Your task to perform on an android device: Open battery settings Image 0: 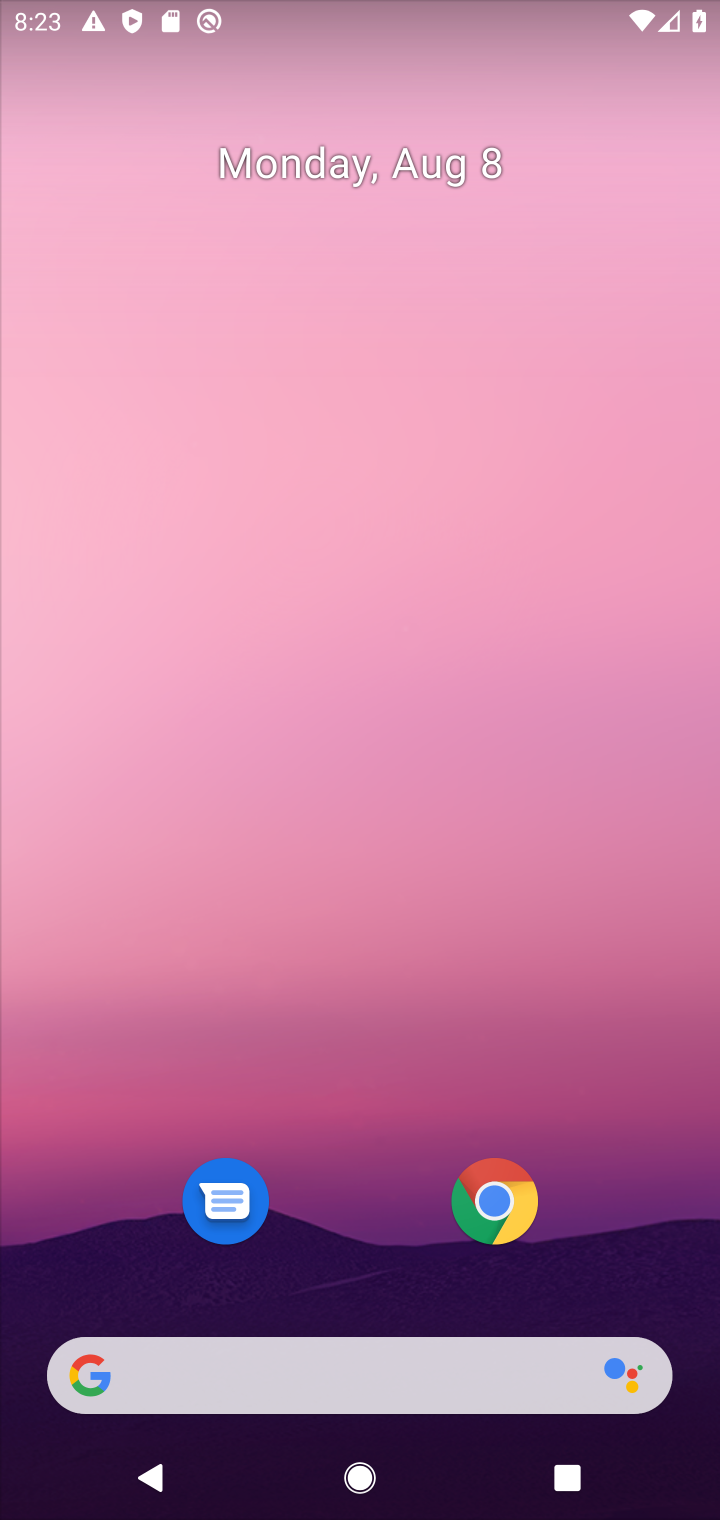
Step 0: press home button
Your task to perform on an android device: Open battery settings Image 1: 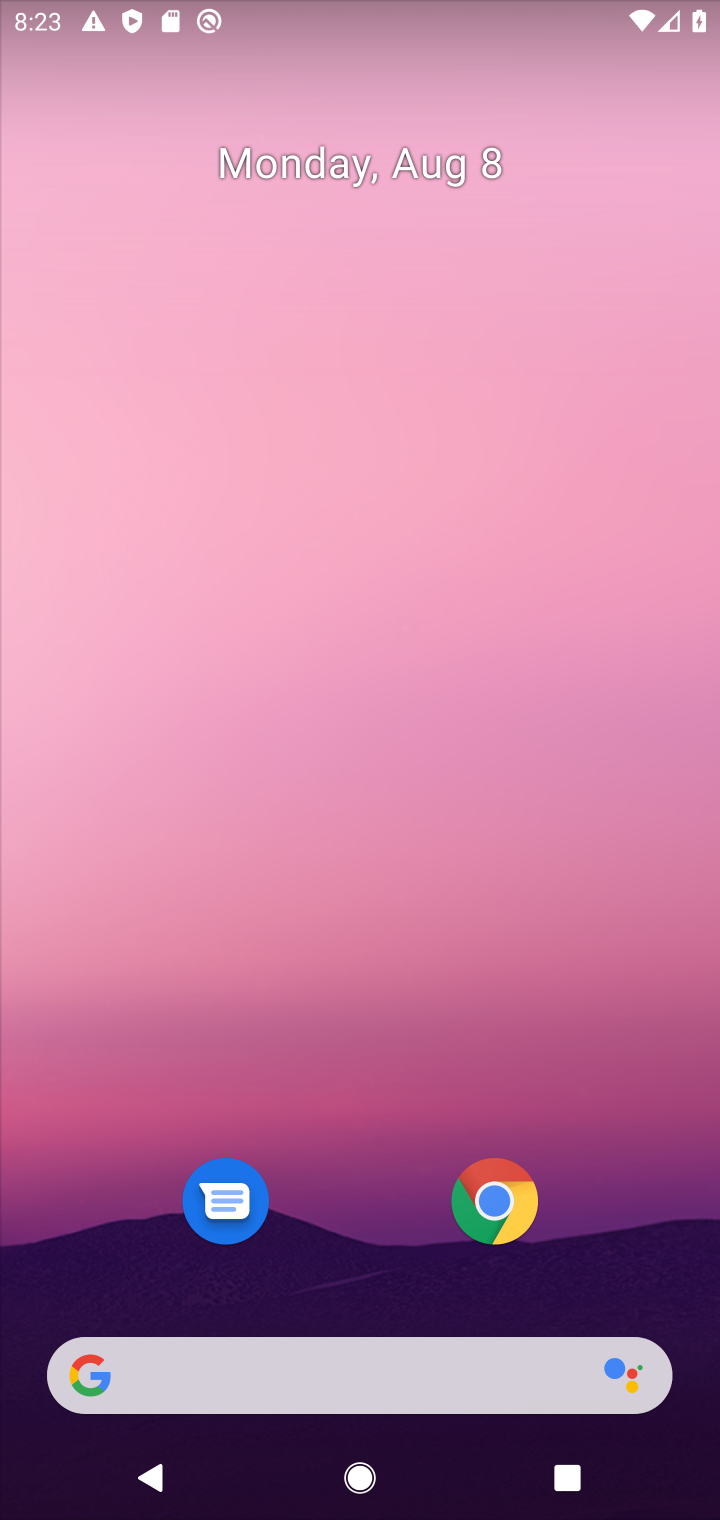
Step 1: drag from (355, 1056) to (454, 242)
Your task to perform on an android device: Open battery settings Image 2: 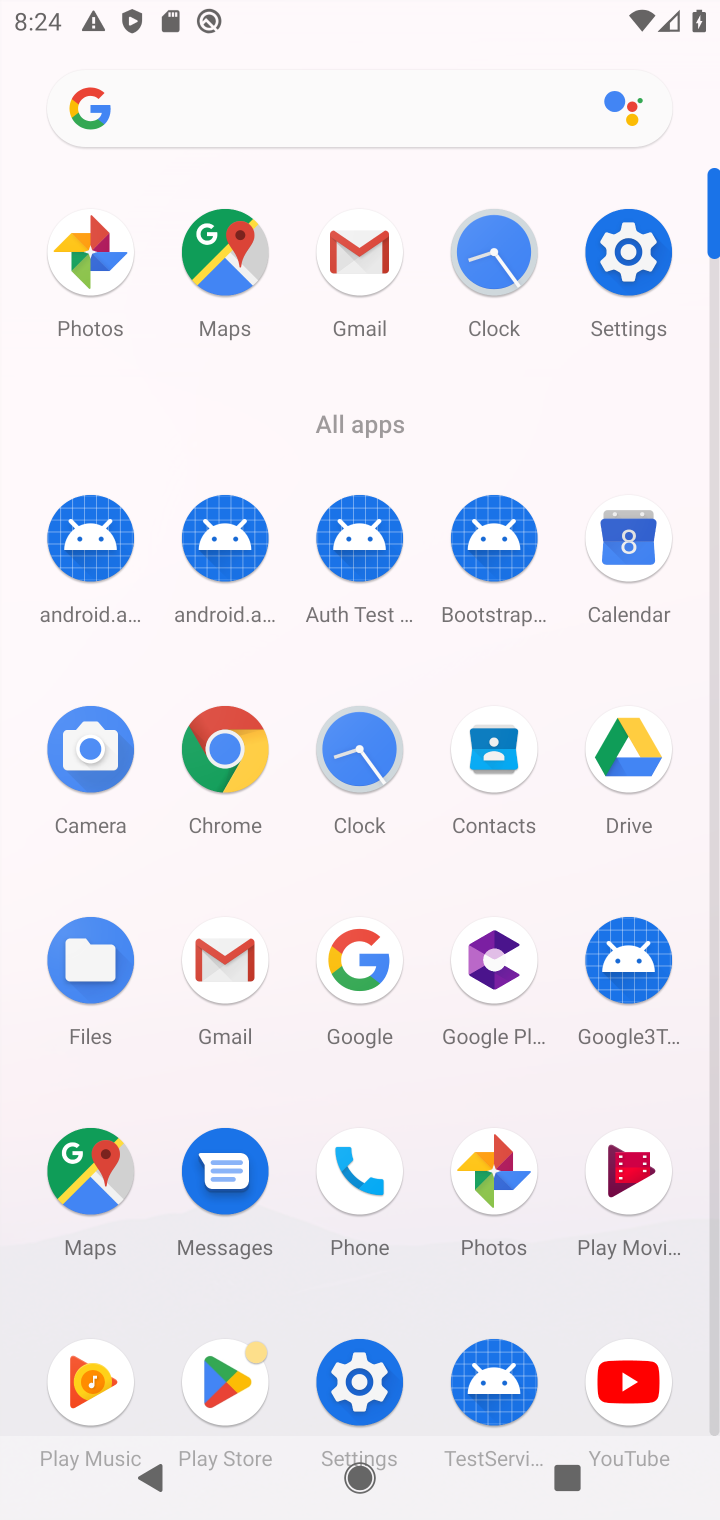
Step 2: click (631, 261)
Your task to perform on an android device: Open battery settings Image 3: 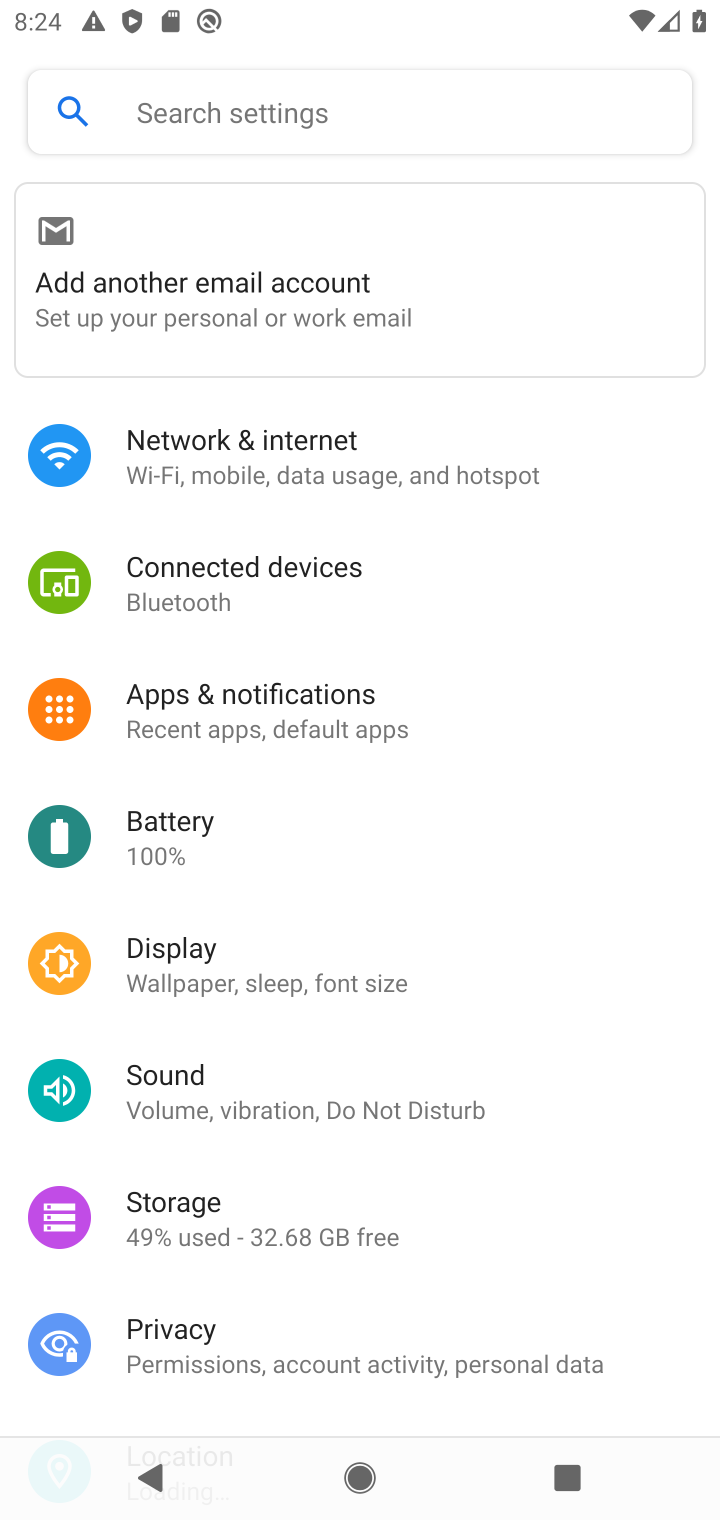
Step 3: drag from (564, 889) to (602, 616)
Your task to perform on an android device: Open battery settings Image 4: 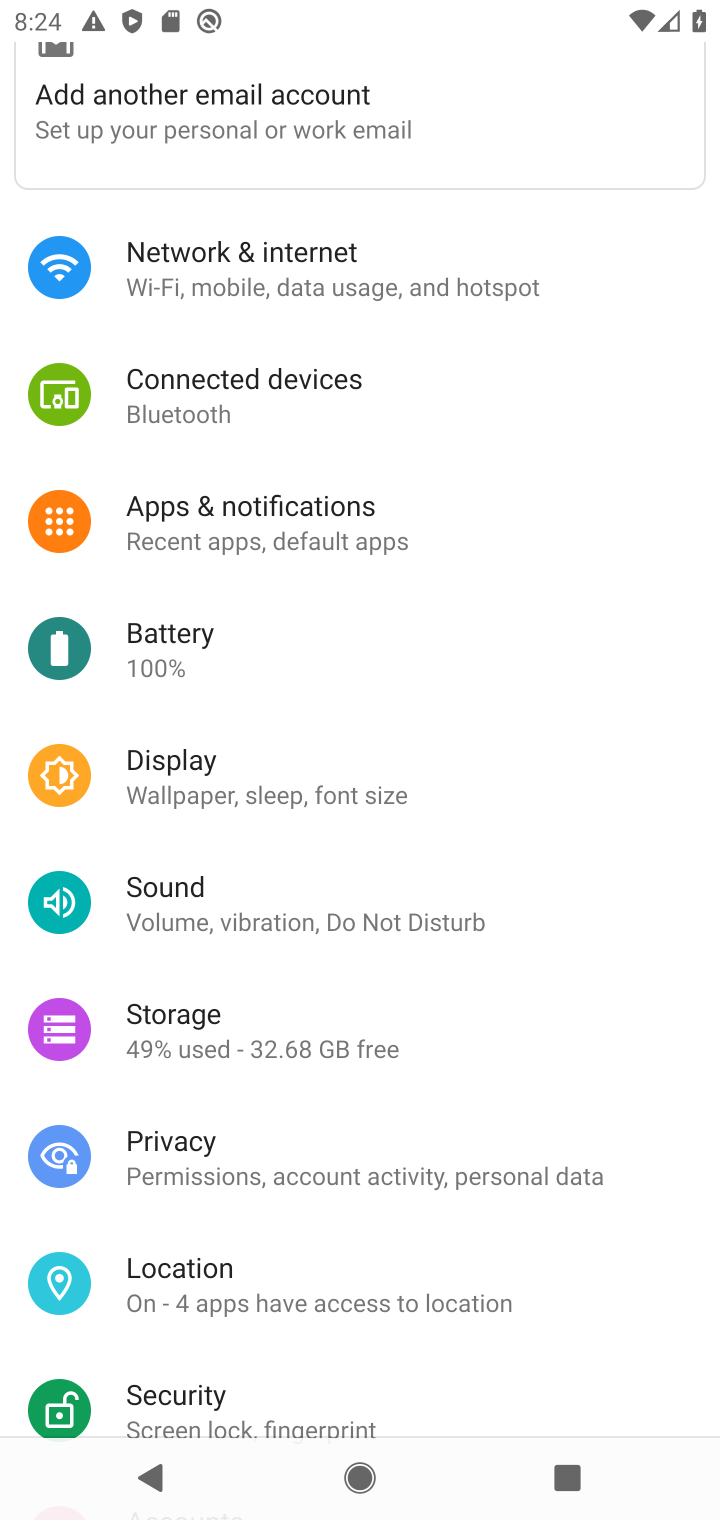
Step 4: drag from (566, 1055) to (620, 723)
Your task to perform on an android device: Open battery settings Image 5: 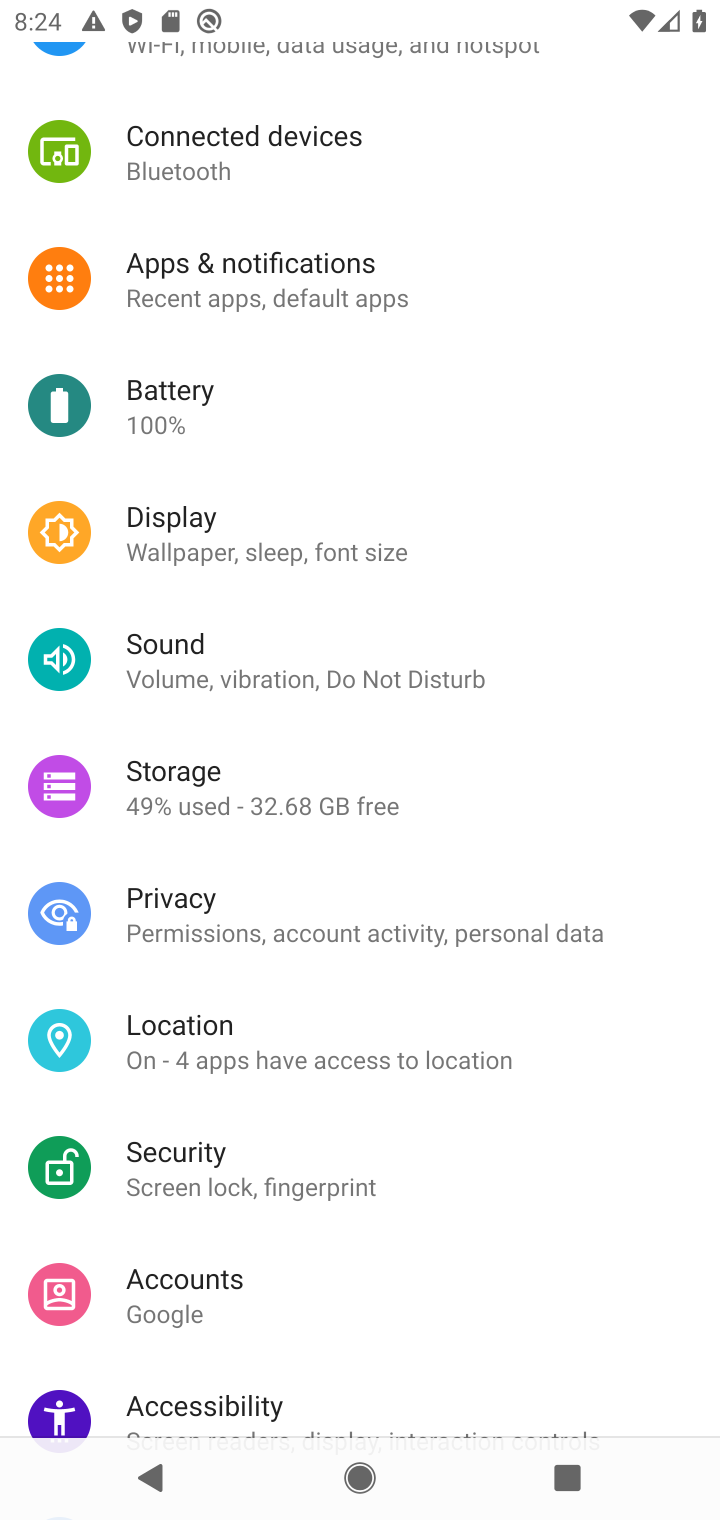
Step 5: drag from (608, 1063) to (645, 781)
Your task to perform on an android device: Open battery settings Image 6: 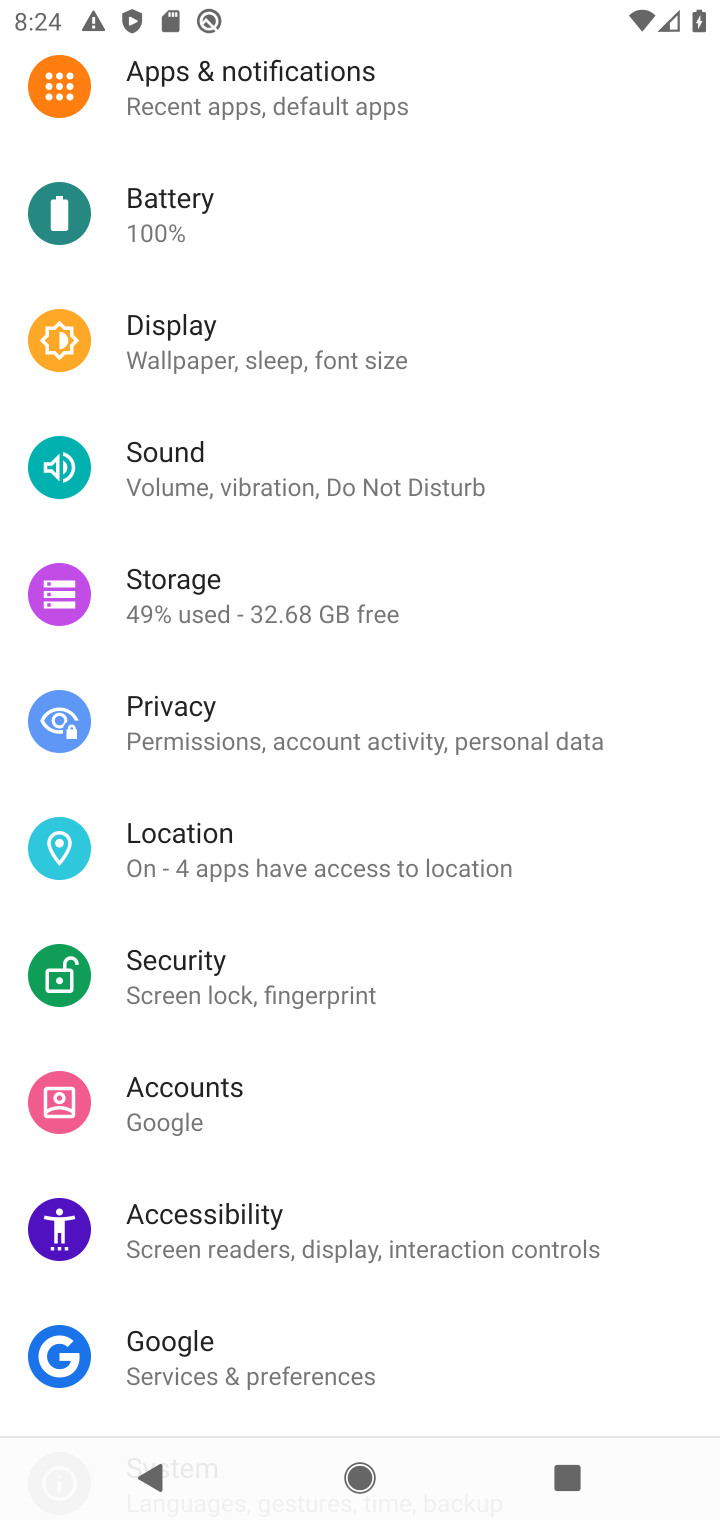
Step 6: drag from (593, 1112) to (622, 766)
Your task to perform on an android device: Open battery settings Image 7: 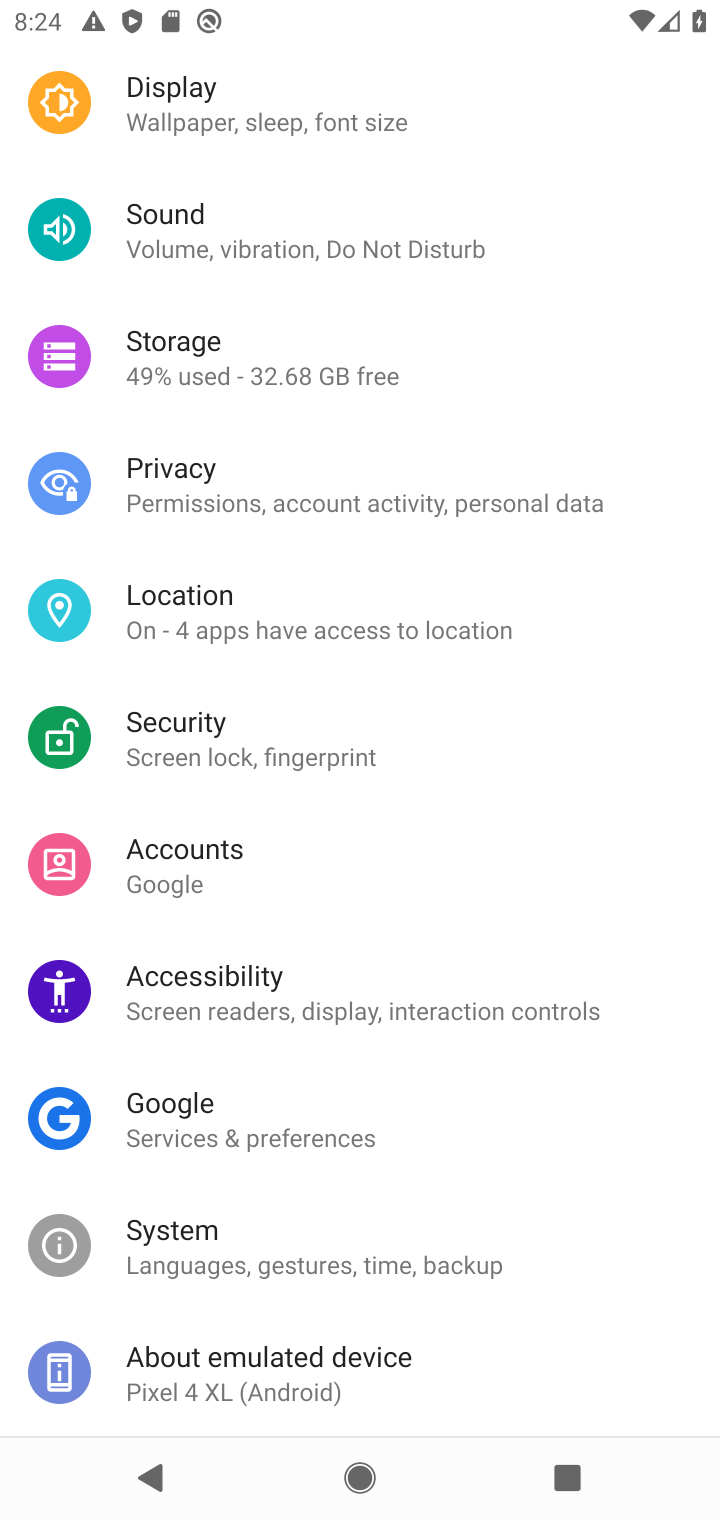
Step 7: drag from (574, 1125) to (611, 848)
Your task to perform on an android device: Open battery settings Image 8: 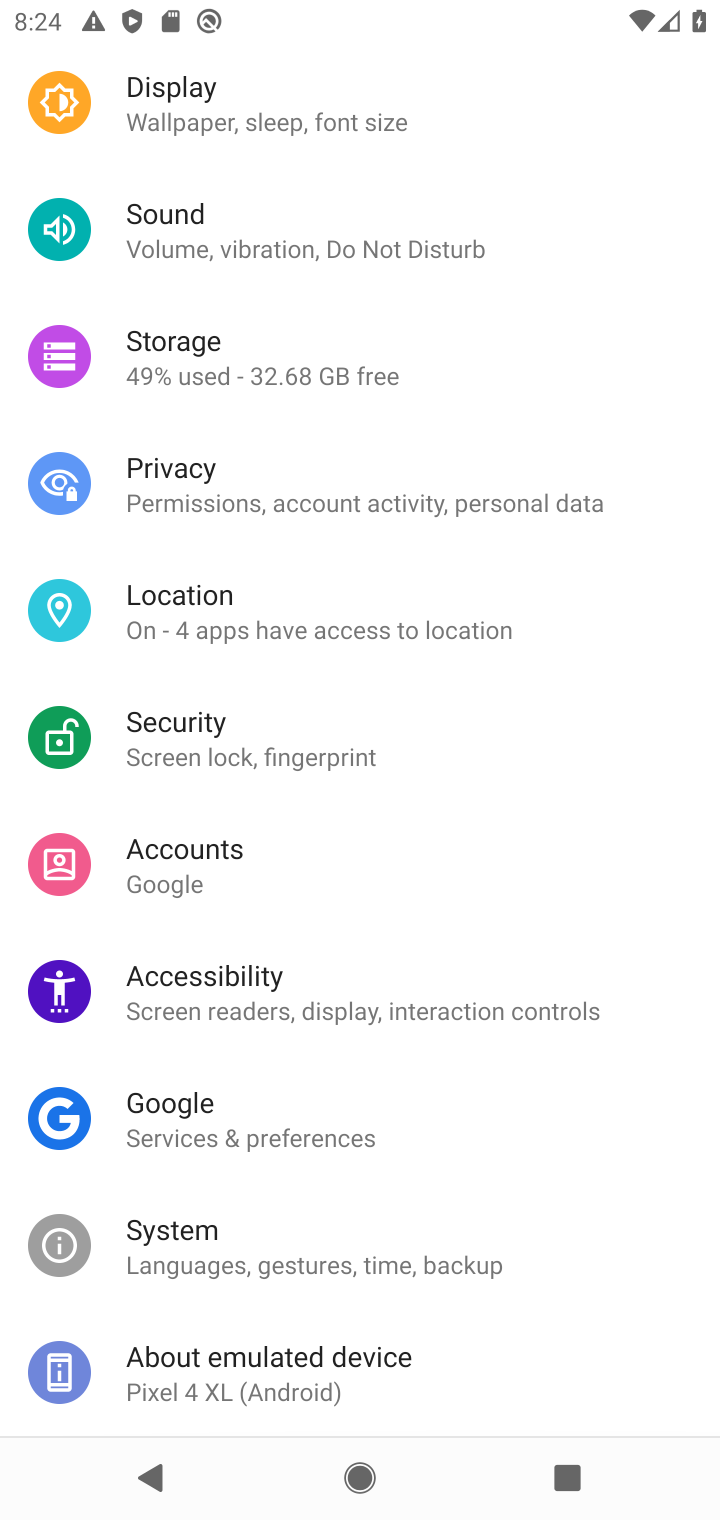
Step 8: drag from (615, 674) to (611, 873)
Your task to perform on an android device: Open battery settings Image 9: 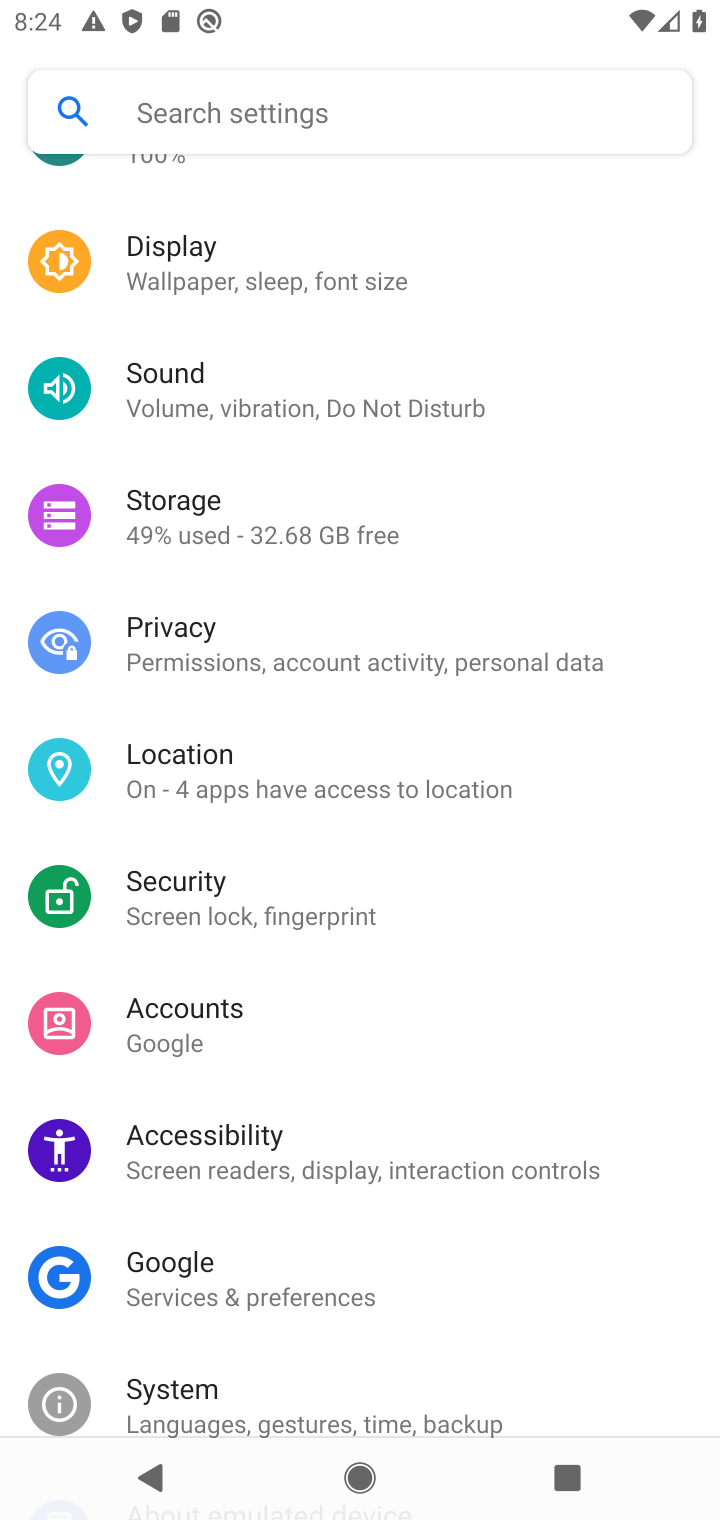
Step 9: drag from (625, 386) to (639, 788)
Your task to perform on an android device: Open battery settings Image 10: 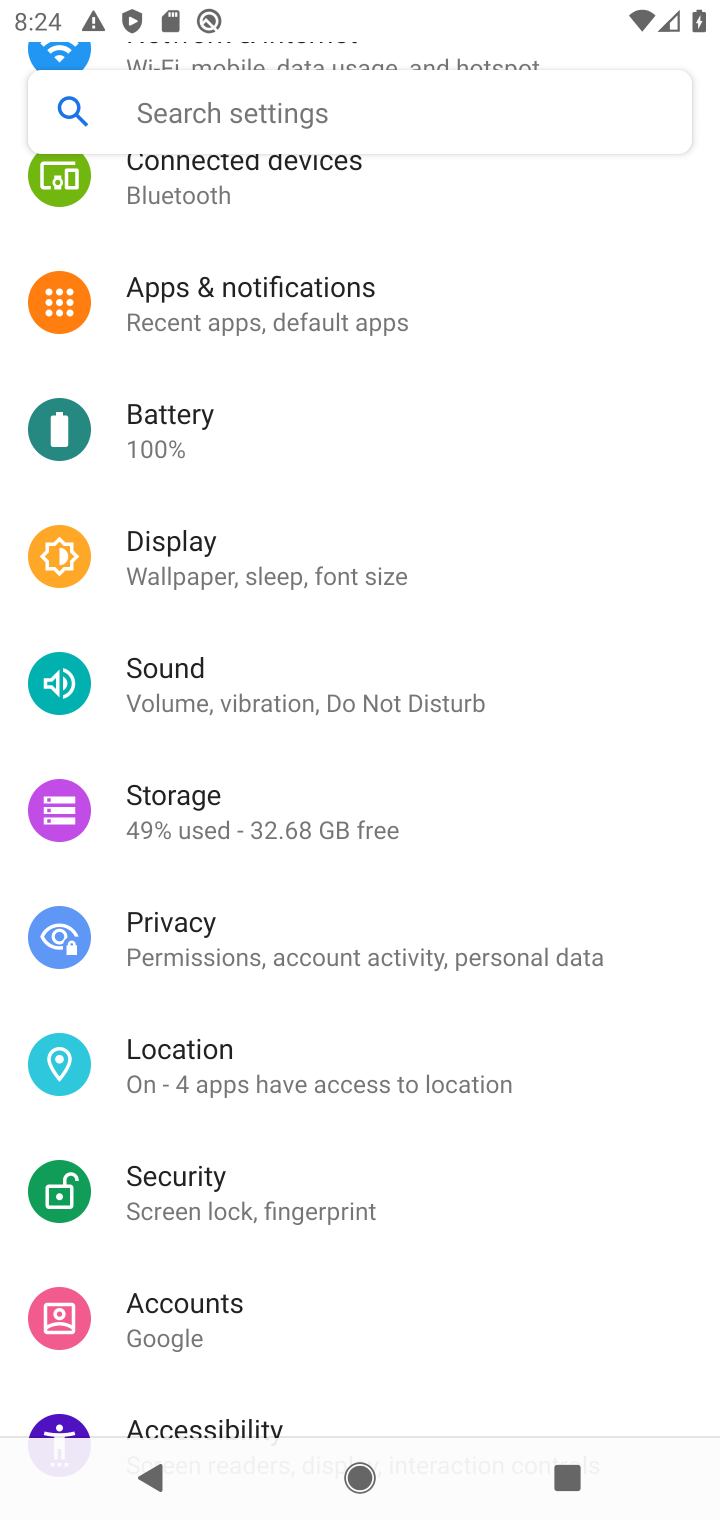
Step 10: drag from (643, 316) to (659, 717)
Your task to perform on an android device: Open battery settings Image 11: 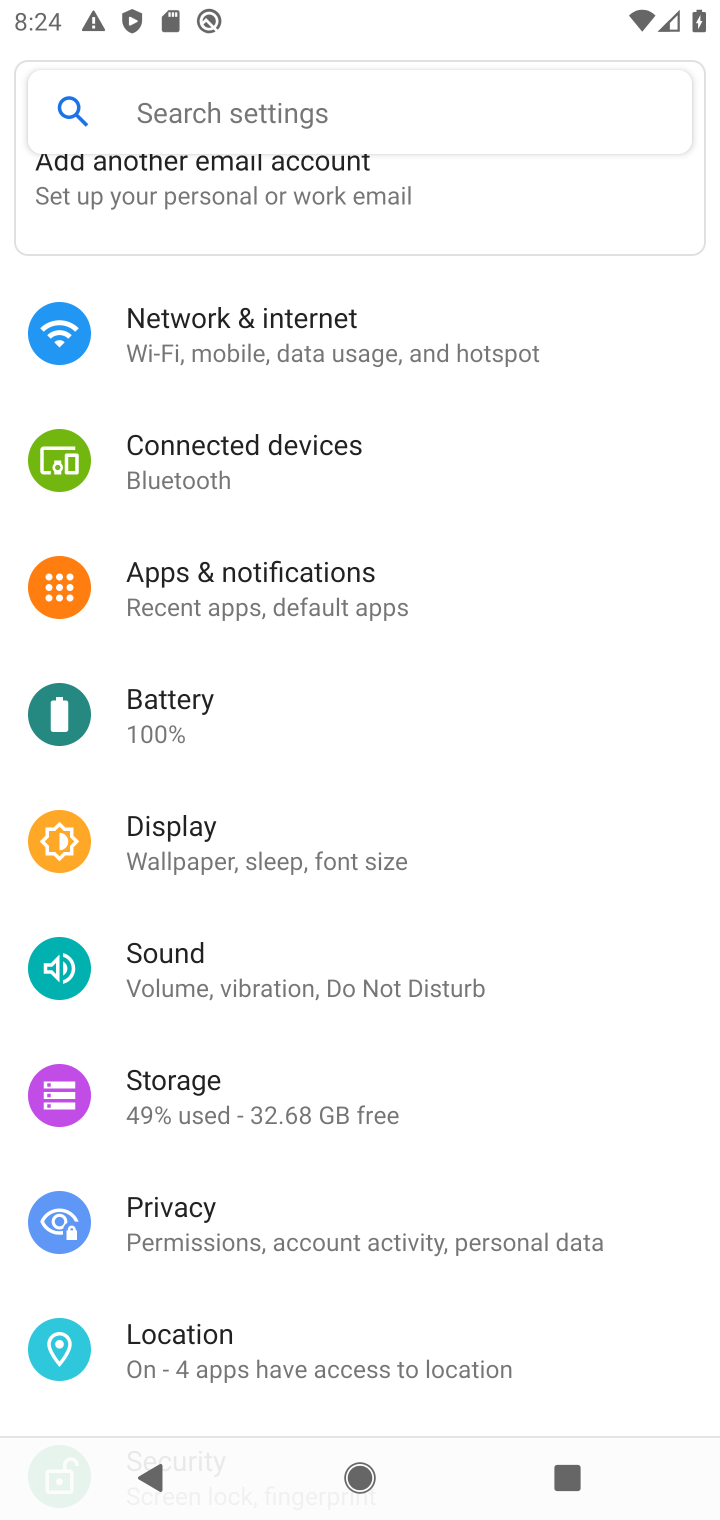
Step 11: drag from (628, 296) to (634, 666)
Your task to perform on an android device: Open battery settings Image 12: 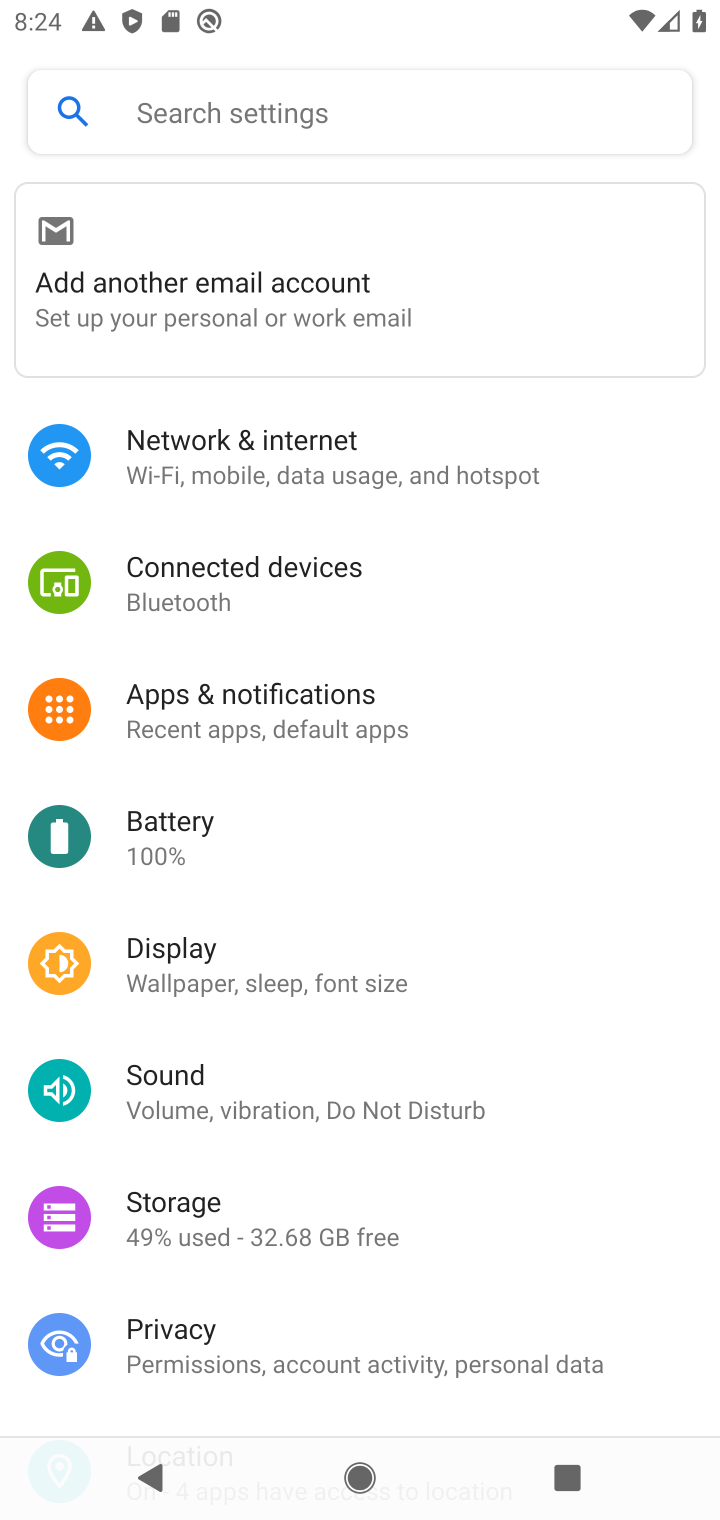
Step 12: click (356, 844)
Your task to perform on an android device: Open battery settings Image 13: 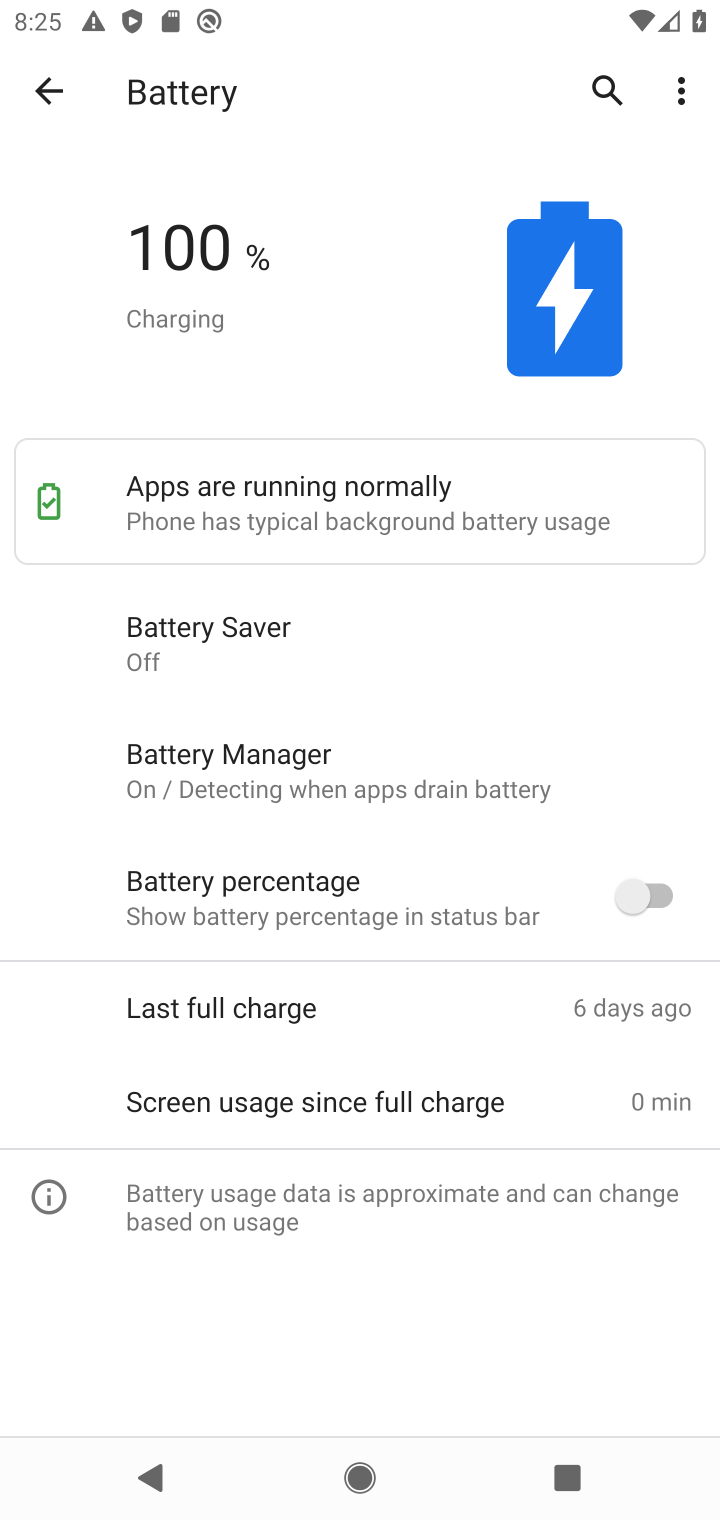
Step 13: task complete